Your task to perform on an android device: toggle pop-ups in chrome Image 0: 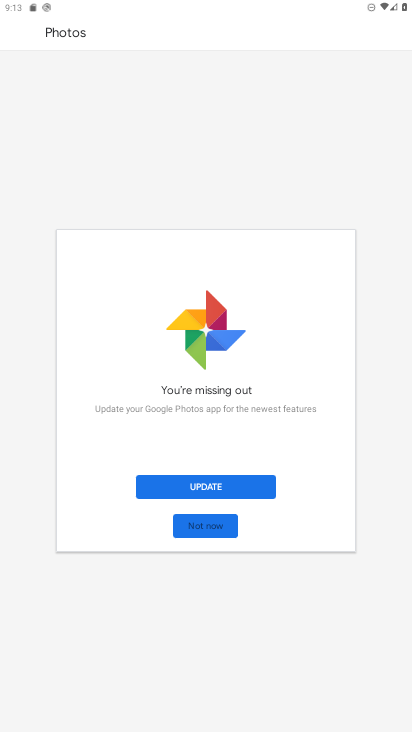
Step 0: press home button
Your task to perform on an android device: toggle pop-ups in chrome Image 1: 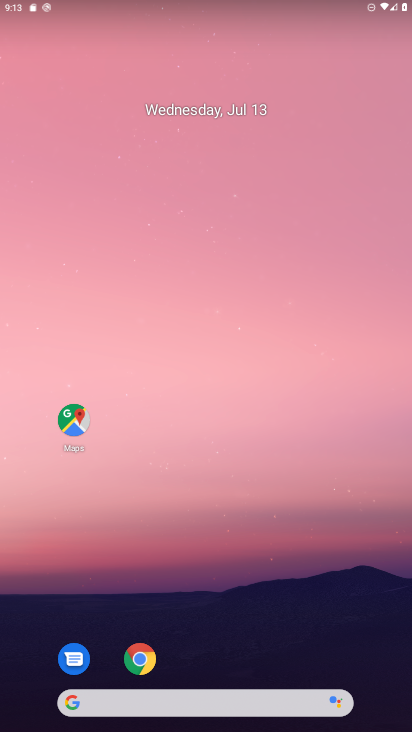
Step 1: click (144, 656)
Your task to perform on an android device: toggle pop-ups in chrome Image 2: 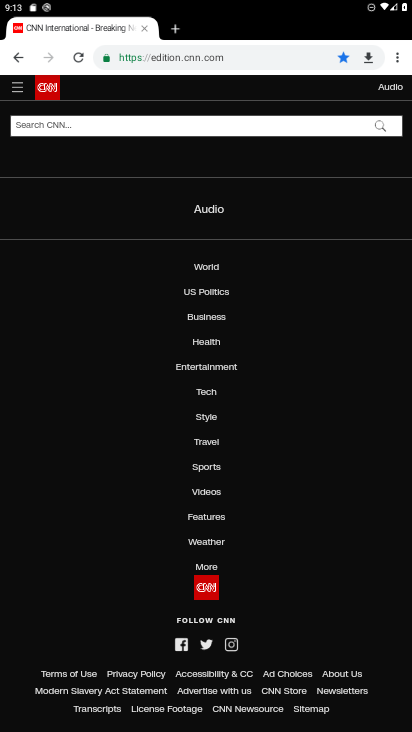
Step 2: click (392, 57)
Your task to perform on an android device: toggle pop-ups in chrome Image 3: 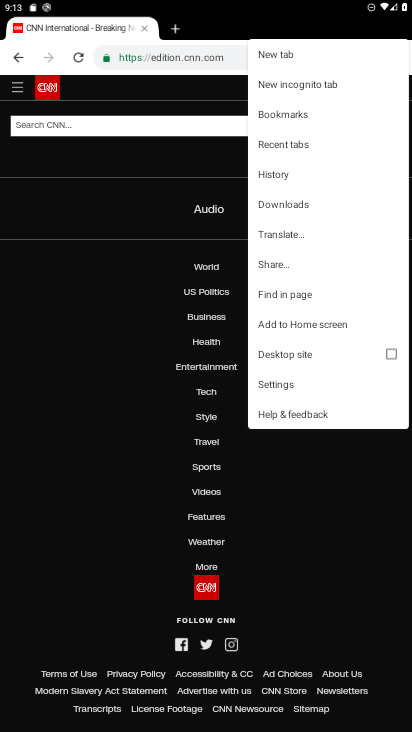
Step 3: click (288, 382)
Your task to perform on an android device: toggle pop-ups in chrome Image 4: 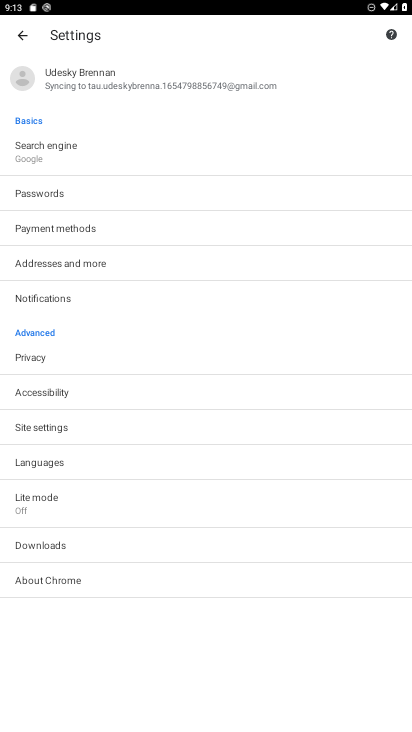
Step 4: click (26, 425)
Your task to perform on an android device: toggle pop-ups in chrome Image 5: 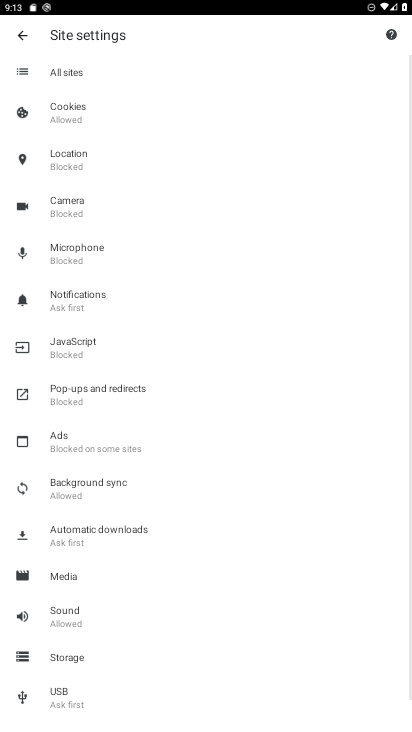
Step 5: click (81, 395)
Your task to perform on an android device: toggle pop-ups in chrome Image 6: 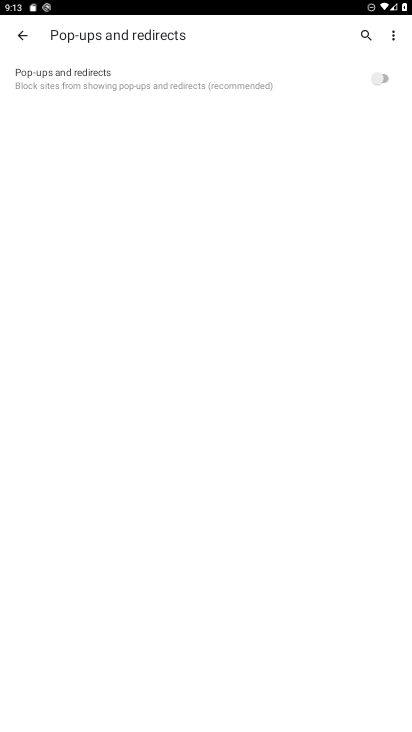
Step 6: click (378, 76)
Your task to perform on an android device: toggle pop-ups in chrome Image 7: 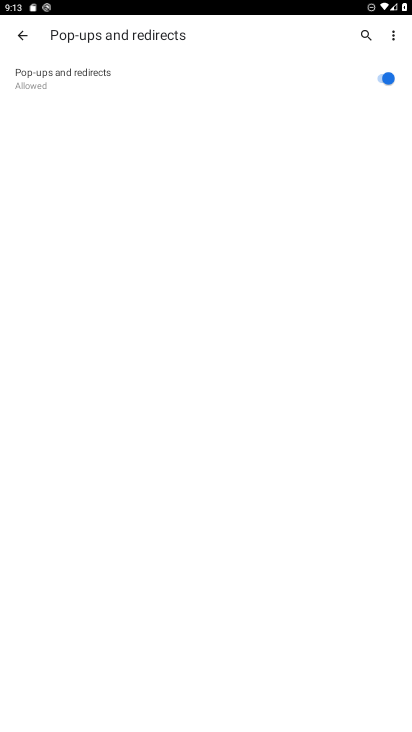
Step 7: task complete